Your task to perform on an android device: Turn on the flashlight Image 0: 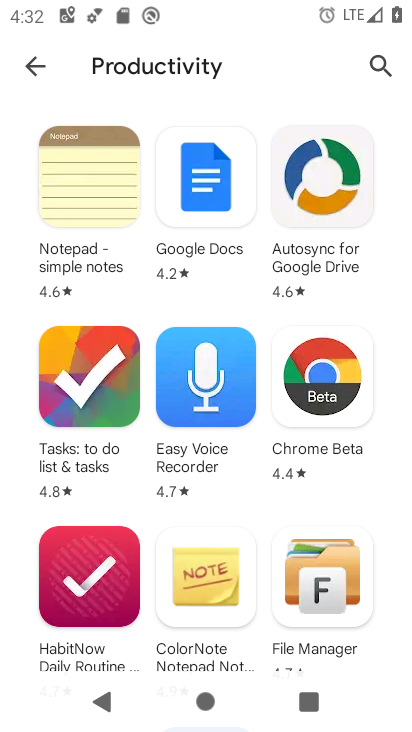
Step 0: press home button
Your task to perform on an android device: Turn on the flashlight Image 1: 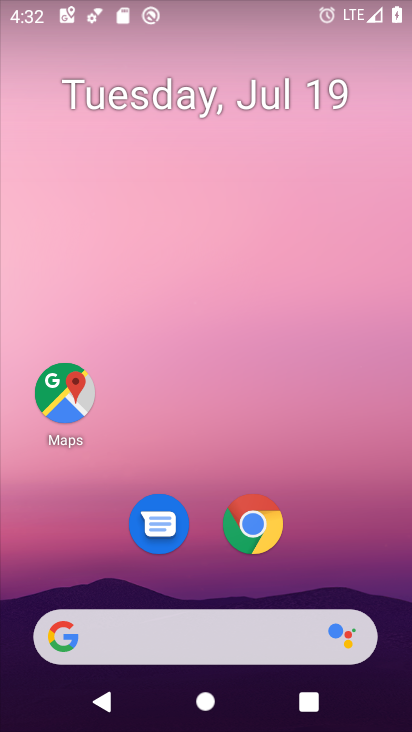
Step 1: drag from (307, 544) to (274, 42)
Your task to perform on an android device: Turn on the flashlight Image 2: 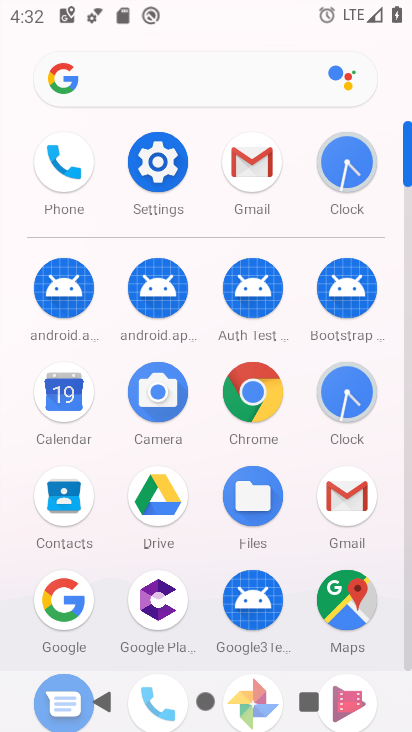
Step 2: click (167, 161)
Your task to perform on an android device: Turn on the flashlight Image 3: 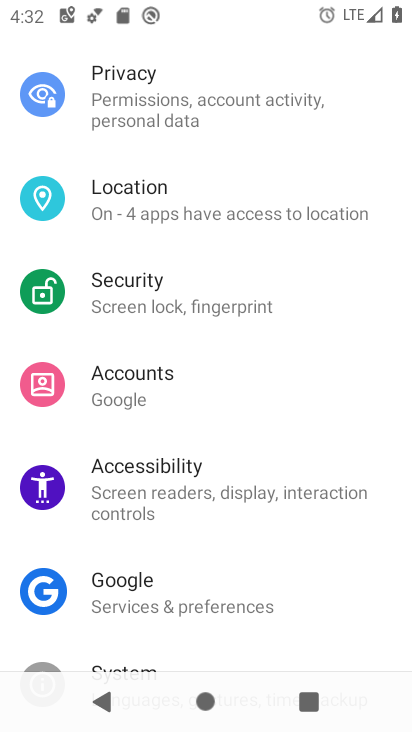
Step 3: drag from (268, 156) to (229, 651)
Your task to perform on an android device: Turn on the flashlight Image 4: 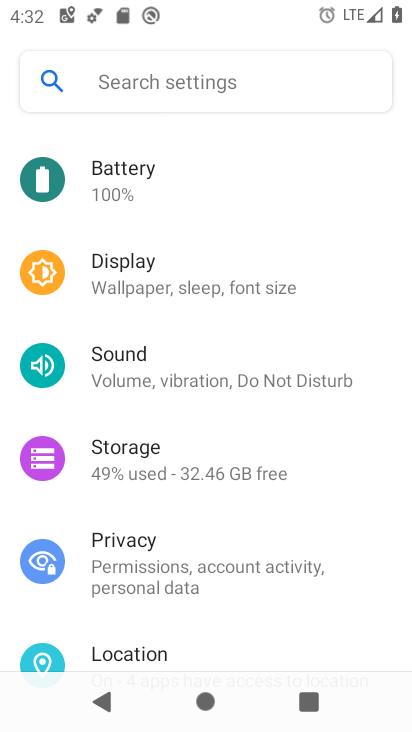
Step 4: drag from (299, 191) to (310, 659)
Your task to perform on an android device: Turn on the flashlight Image 5: 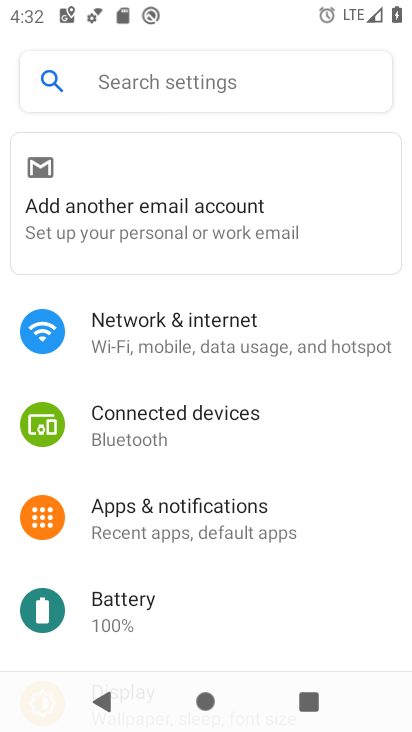
Step 5: click (279, 92)
Your task to perform on an android device: Turn on the flashlight Image 6: 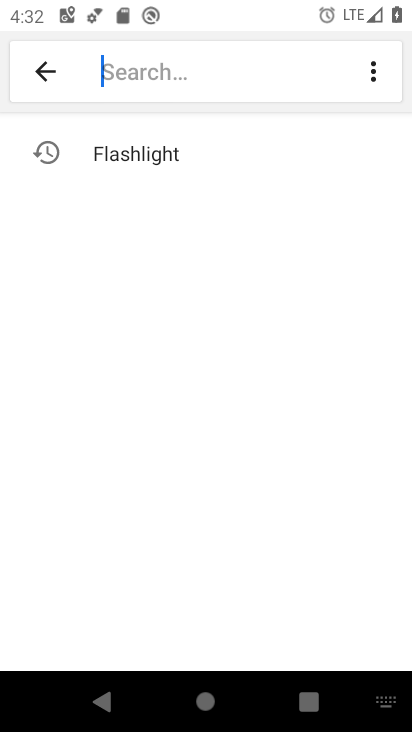
Step 6: click (156, 155)
Your task to perform on an android device: Turn on the flashlight Image 7: 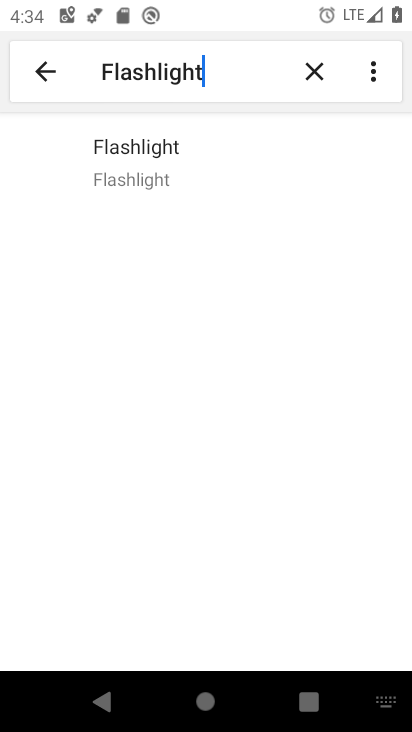
Step 7: click (143, 157)
Your task to perform on an android device: Turn on the flashlight Image 8: 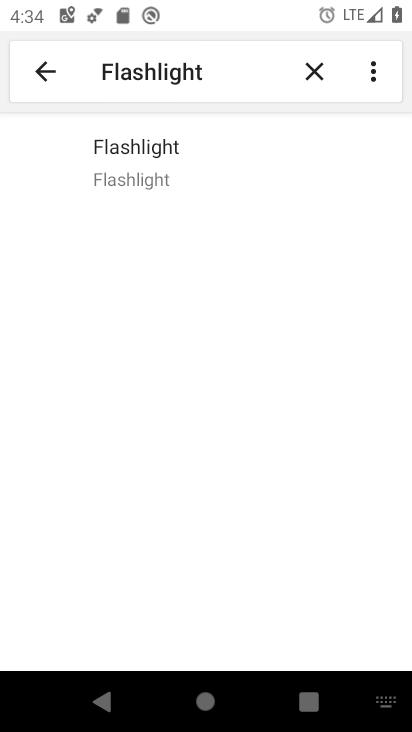
Step 8: task complete